Your task to perform on an android device: Is it going to rain this weekend? Image 0: 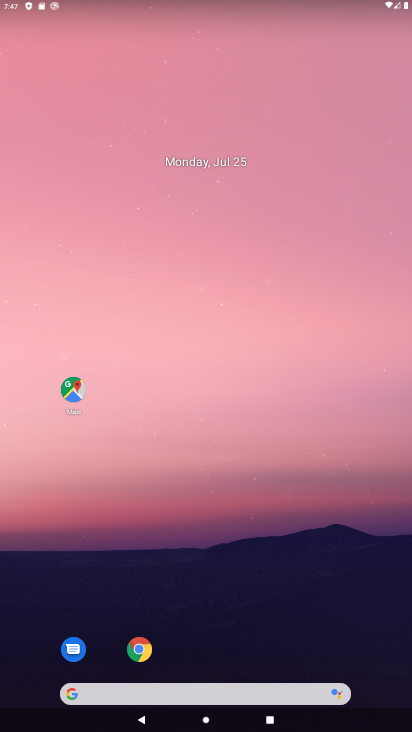
Step 0: drag from (6, 252) to (366, 290)
Your task to perform on an android device: Is it going to rain this weekend? Image 1: 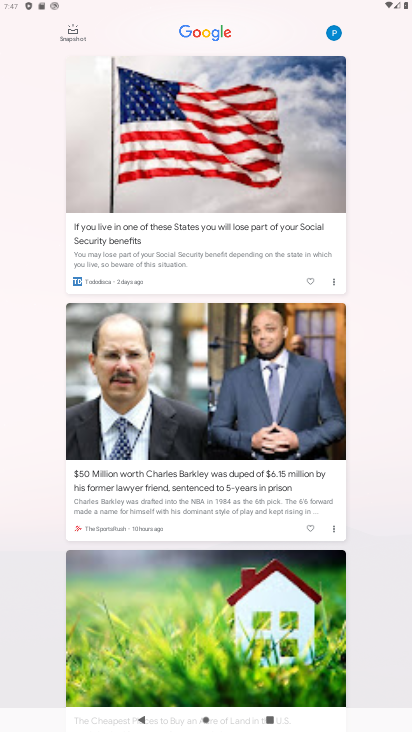
Step 1: drag from (239, 110) to (186, 395)
Your task to perform on an android device: Is it going to rain this weekend? Image 2: 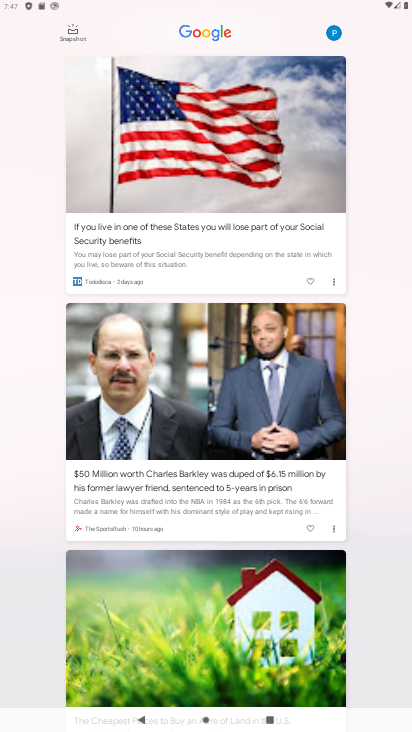
Step 2: drag from (409, 307) to (1, 254)
Your task to perform on an android device: Is it going to rain this weekend? Image 3: 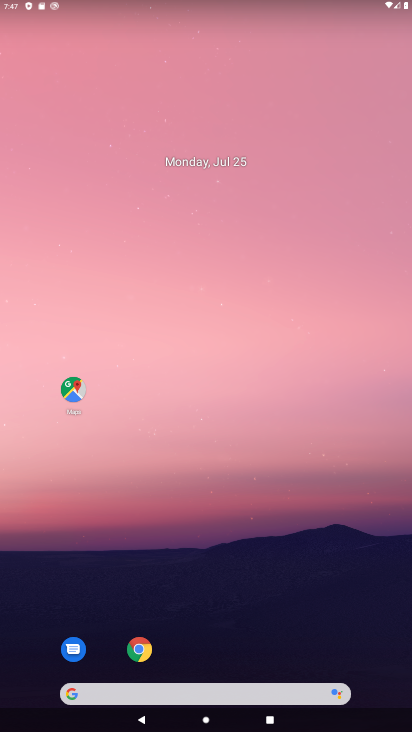
Step 3: click (147, 689)
Your task to perform on an android device: Is it going to rain this weekend? Image 4: 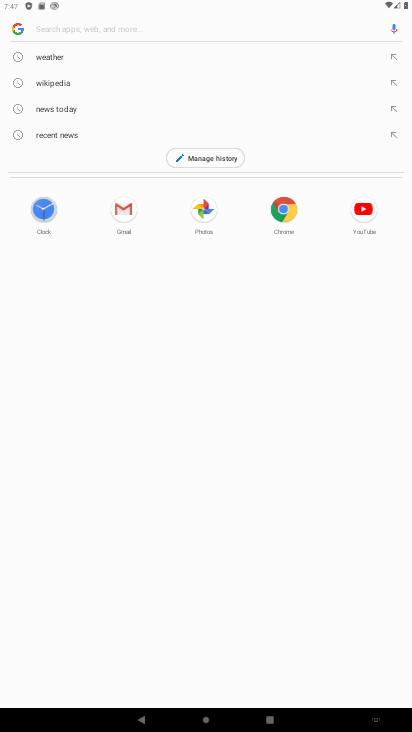
Step 4: click (45, 55)
Your task to perform on an android device: Is it going to rain this weekend? Image 5: 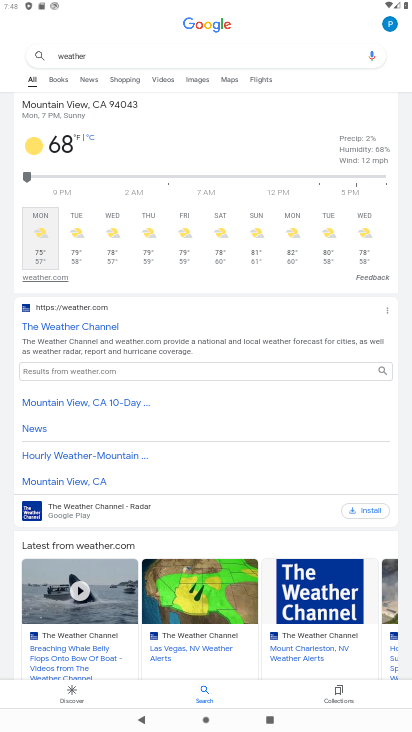
Step 5: task complete